Your task to perform on an android device: find photos in the google photos app Image 0: 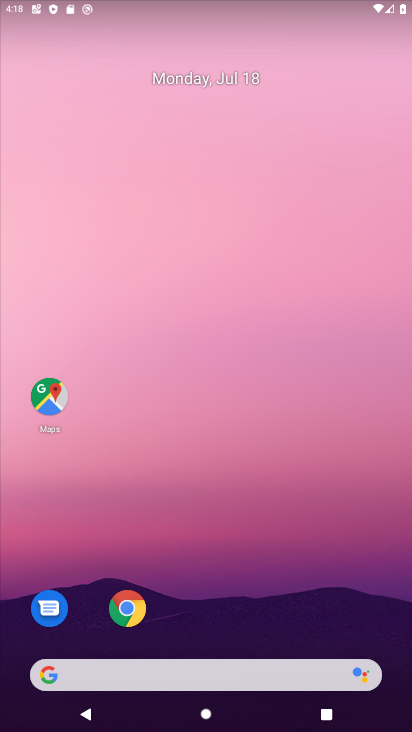
Step 0: drag from (304, 591) to (271, 101)
Your task to perform on an android device: find photos in the google photos app Image 1: 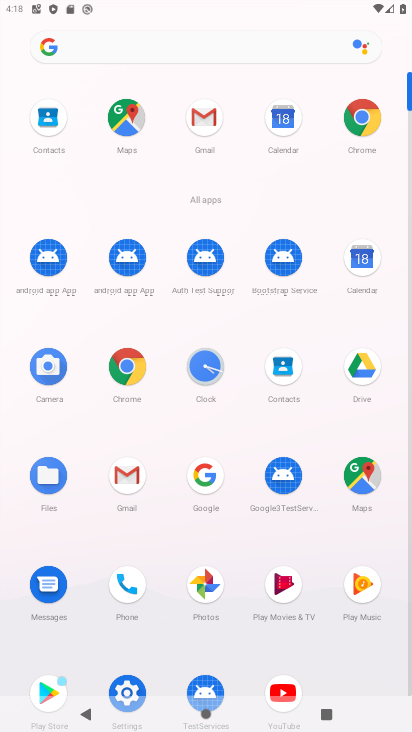
Step 1: click (195, 582)
Your task to perform on an android device: find photos in the google photos app Image 2: 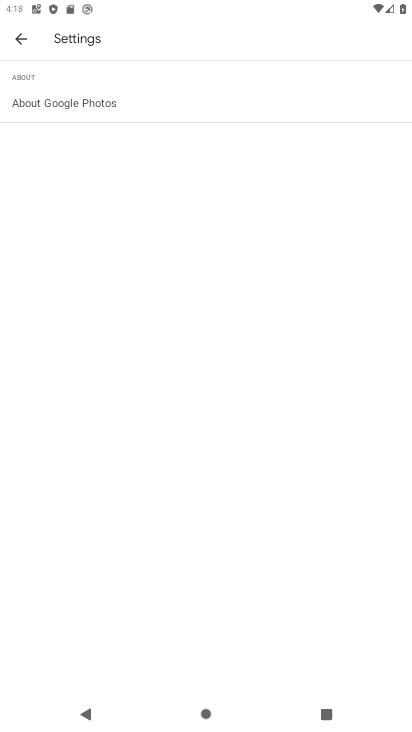
Step 2: click (18, 34)
Your task to perform on an android device: find photos in the google photos app Image 3: 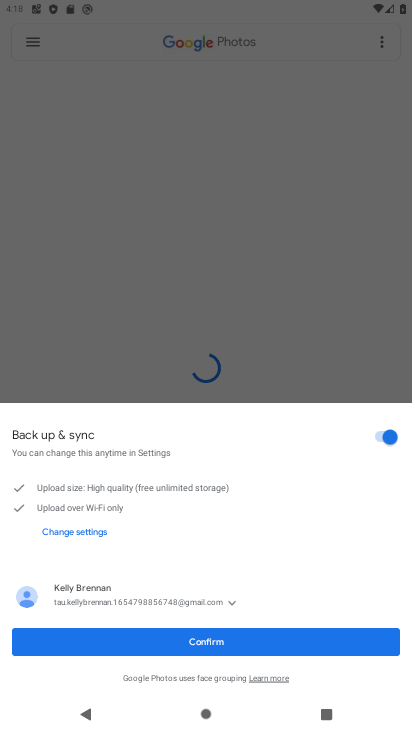
Step 3: click (230, 648)
Your task to perform on an android device: find photos in the google photos app Image 4: 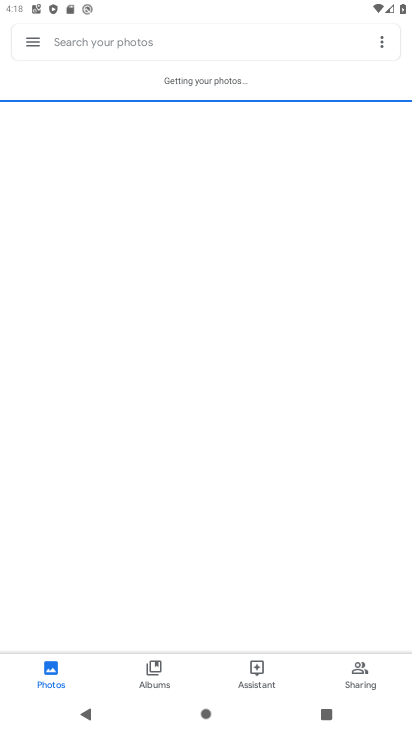
Step 4: task complete